Your task to perform on an android device: delete location history Image 0: 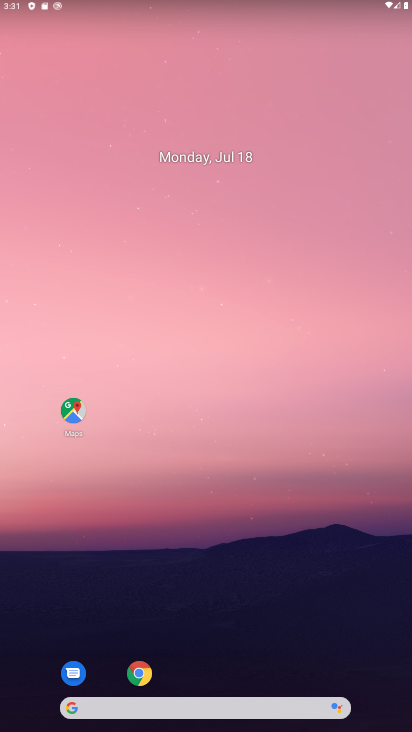
Step 0: drag from (326, 616) to (276, 164)
Your task to perform on an android device: delete location history Image 1: 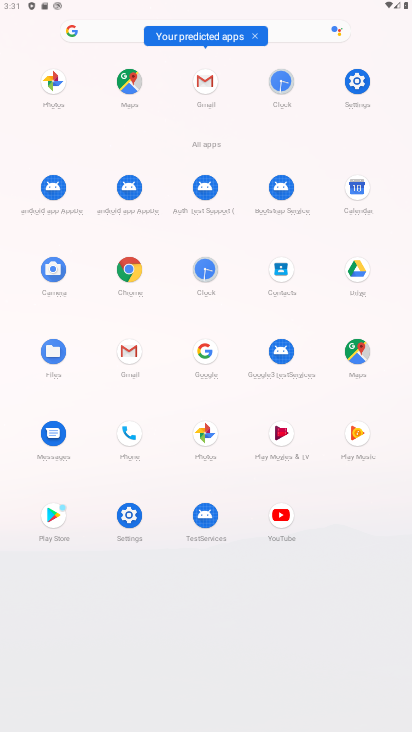
Step 1: click (123, 87)
Your task to perform on an android device: delete location history Image 2: 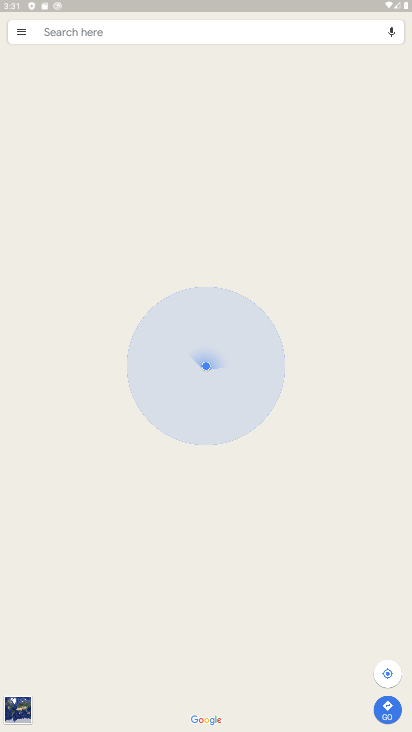
Step 2: click (17, 28)
Your task to perform on an android device: delete location history Image 3: 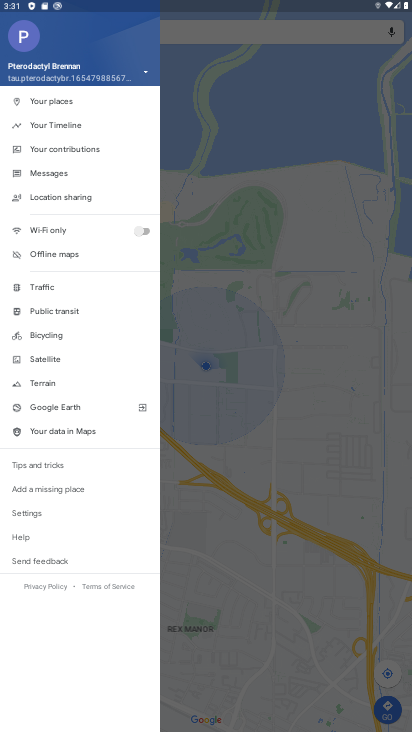
Step 3: click (62, 122)
Your task to perform on an android device: delete location history Image 4: 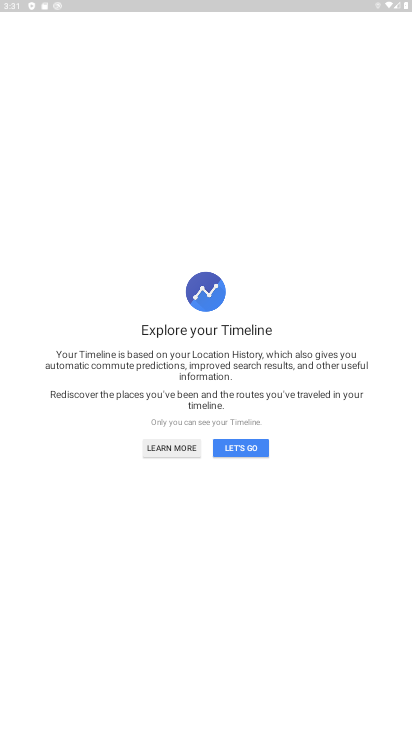
Step 4: click (246, 444)
Your task to perform on an android device: delete location history Image 5: 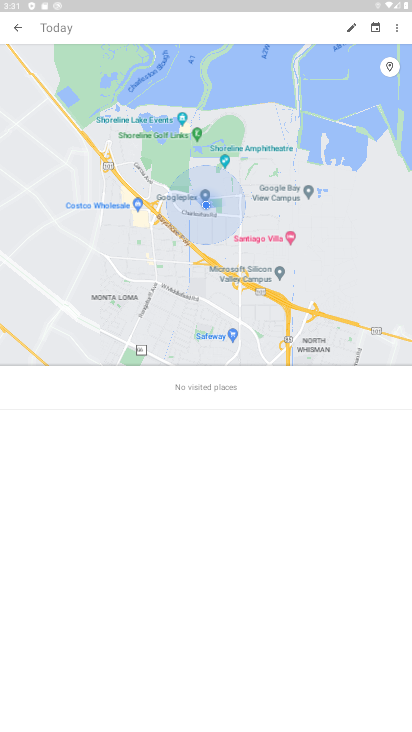
Step 5: click (398, 32)
Your task to perform on an android device: delete location history Image 6: 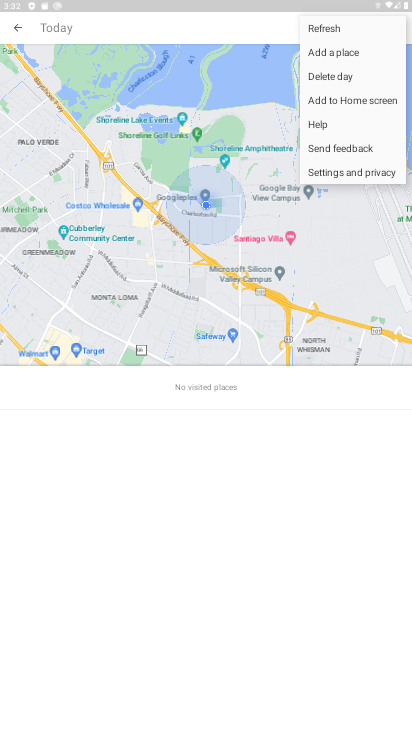
Step 6: click (371, 168)
Your task to perform on an android device: delete location history Image 7: 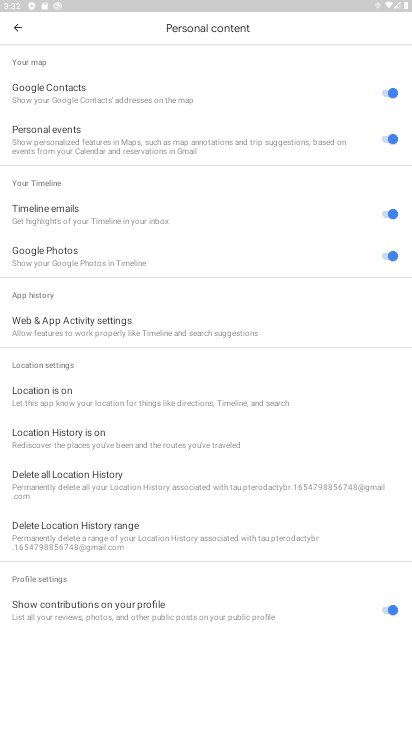
Step 7: click (260, 475)
Your task to perform on an android device: delete location history Image 8: 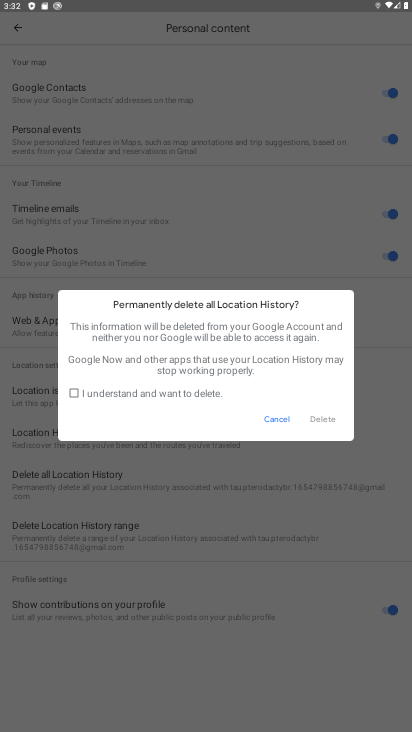
Step 8: click (176, 401)
Your task to perform on an android device: delete location history Image 9: 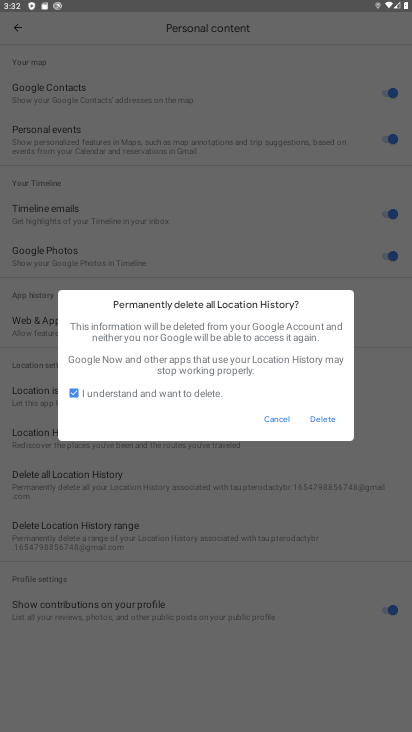
Step 9: click (342, 428)
Your task to perform on an android device: delete location history Image 10: 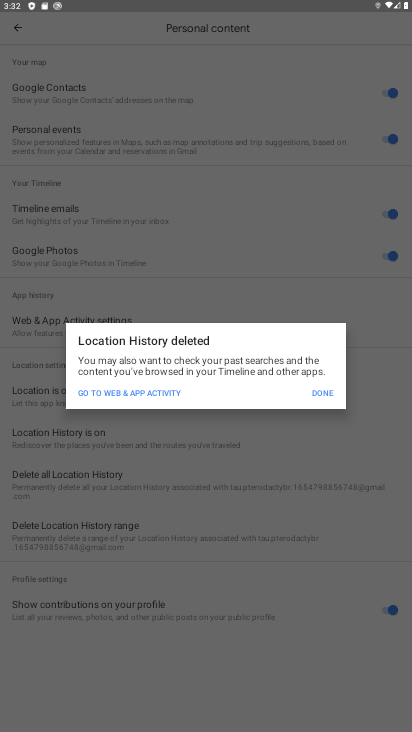
Step 10: click (332, 395)
Your task to perform on an android device: delete location history Image 11: 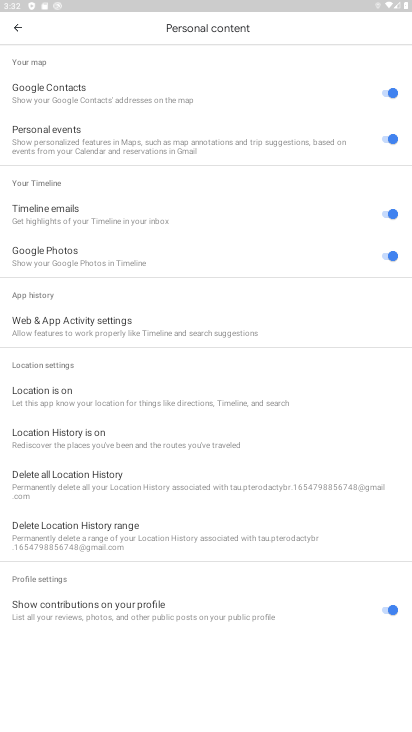
Step 11: task complete